Your task to perform on an android device: turn notification dots on Image 0: 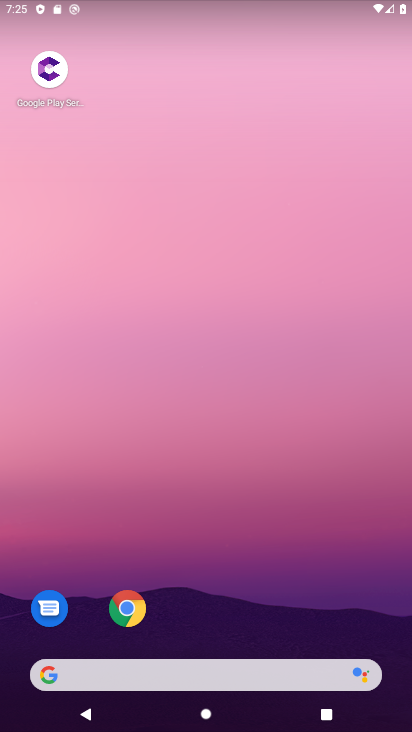
Step 0: drag from (345, 355) to (326, 207)
Your task to perform on an android device: turn notification dots on Image 1: 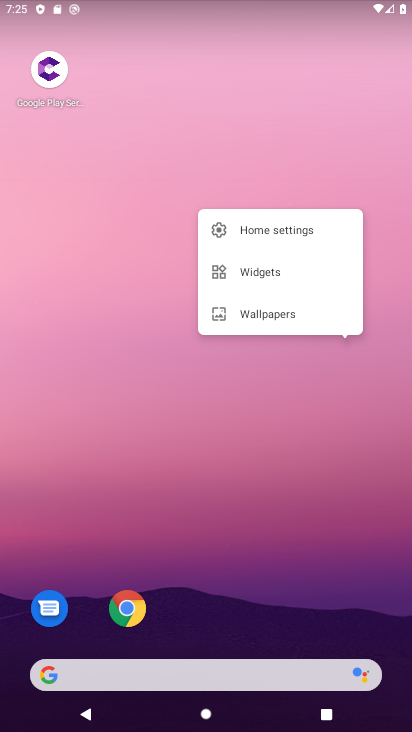
Step 1: drag from (396, 702) to (340, 110)
Your task to perform on an android device: turn notification dots on Image 2: 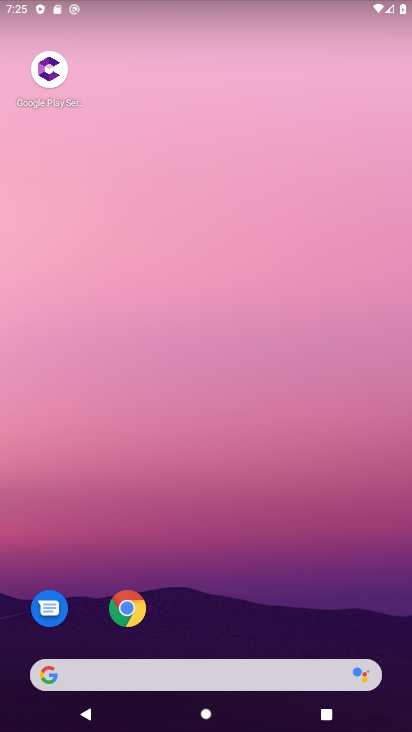
Step 2: drag from (396, 648) to (322, 52)
Your task to perform on an android device: turn notification dots on Image 3: 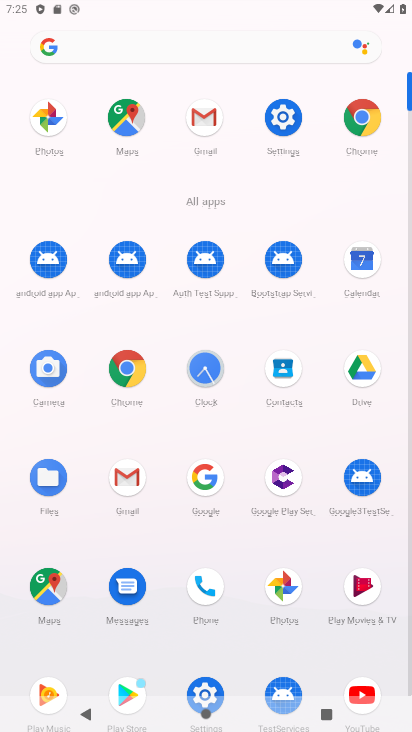
Step 3: click (283, 126)
Your task to perform on an android device: turn notification dots on Image 4: 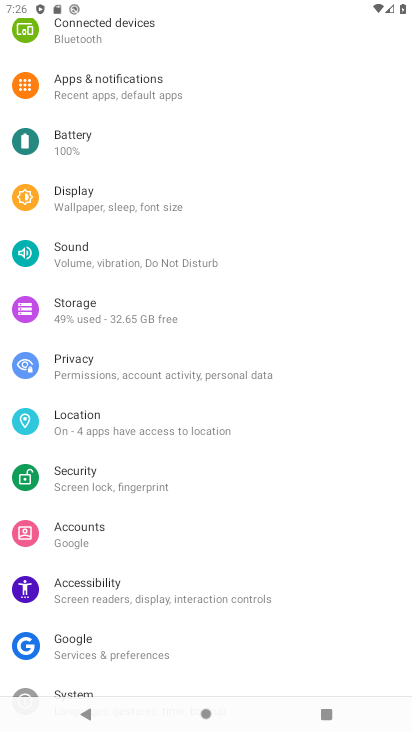
Step 4: click (68, 80)
Your task to perform on an android device: turn notification dots on Image 5: 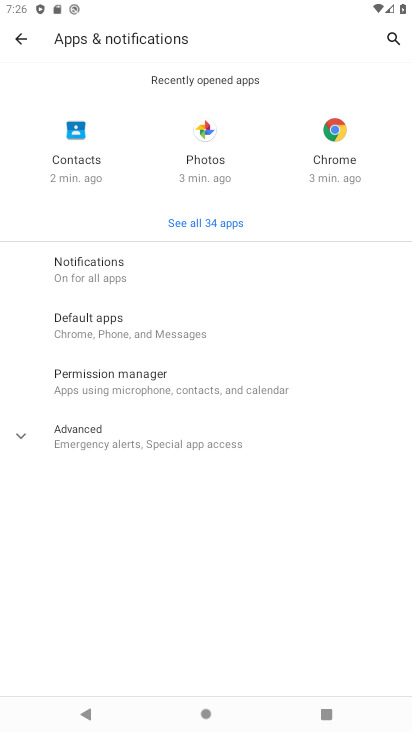
Step 5: click (110, 273)
Your task to perform on an android device: turn notification dots on Image 6: 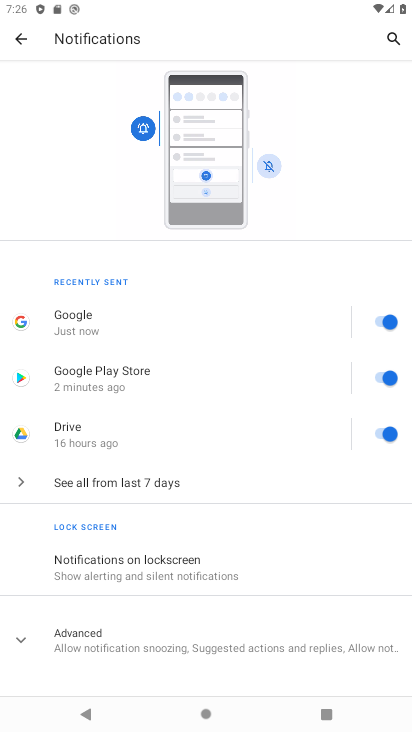
Step 6: drag from (202, 586) to (5, 500)
Your task to perform on an android device: turn notification dots on Image 7: 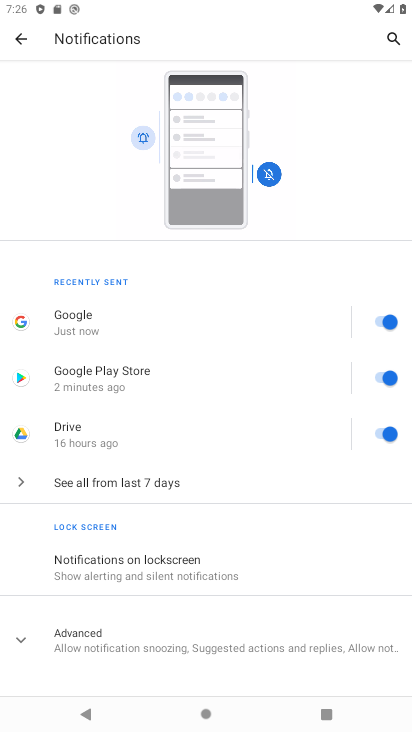
Step 7: drag from (367, 546) to (320, 184)
Your task to perform on an android device: turn notification dots on Image 8: 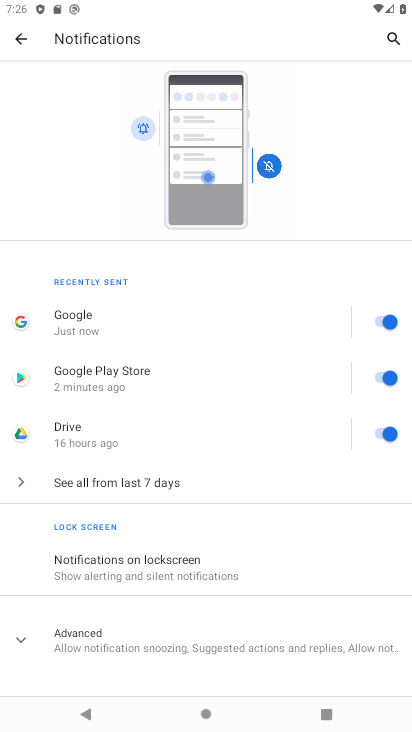
Step 8: click (22, 628)
Your task to perform on an android device: turn notification dots on Image 9: 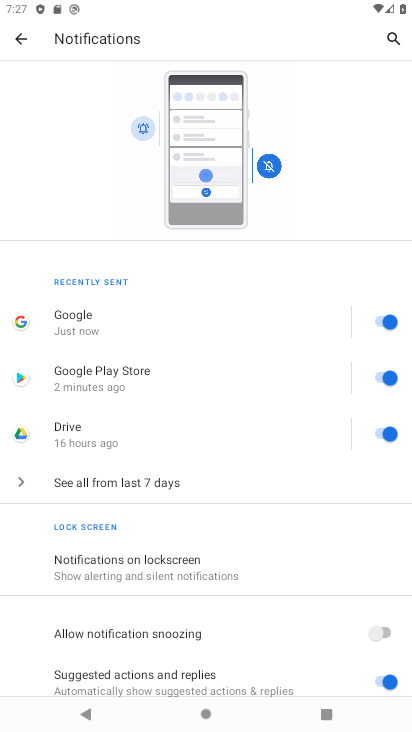
Step 9: task complete